Your task to perform on an android device: What's the weather going to be tomorrow? Image 0: 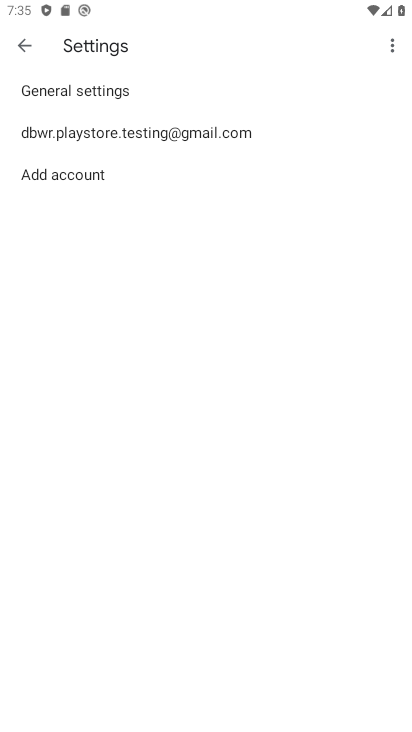
Step 0: press home button
Your task to perform on an android device: What's the weather going to be tomorrow? Image 1: 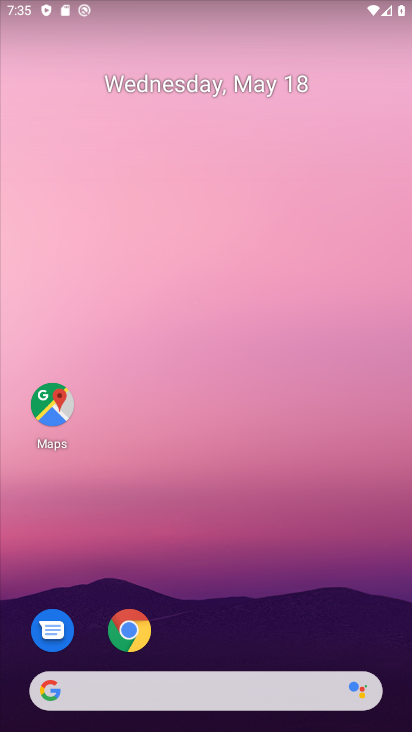
Step 1: click (51, 677)
Your task to perform on an android device: What's the weather going to be tomorrow? Image 2: 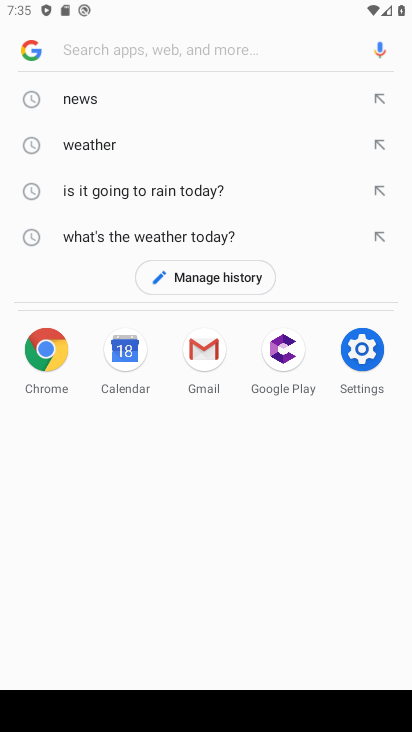
Step 2: click (23, 47)
Your task to perform on an android device: What's the weather going to be tomorrow? Image 3: 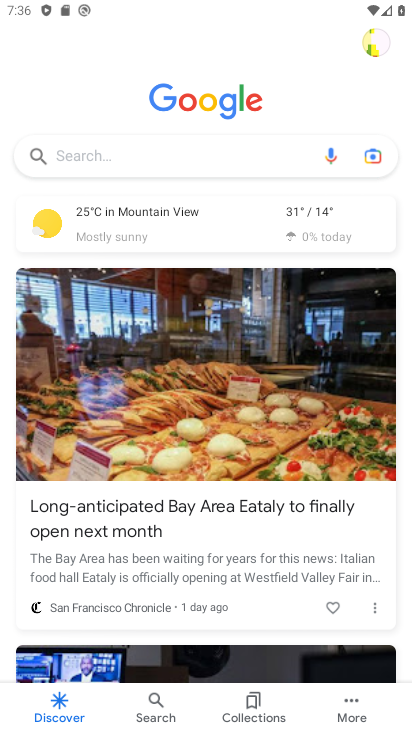
Step 3: click (105, 224)
Your task to perform on an android device: What's the weather going to be tomorrow? Image 4: 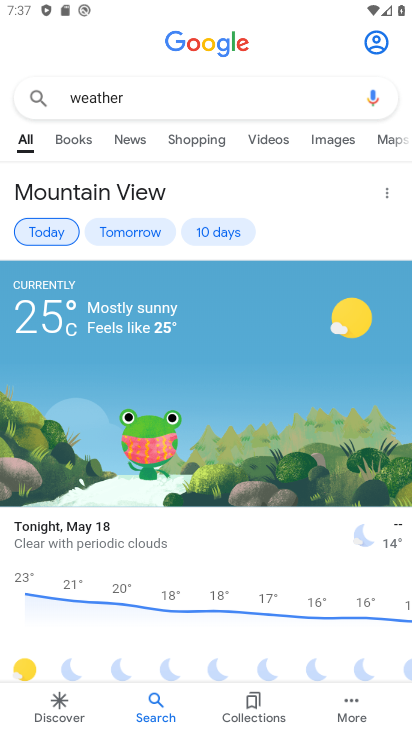
Step 4: task complete